Your task to perform on an android device: View the shopping cart on newegg. Add usb-b to the cart on newegg Image 0: 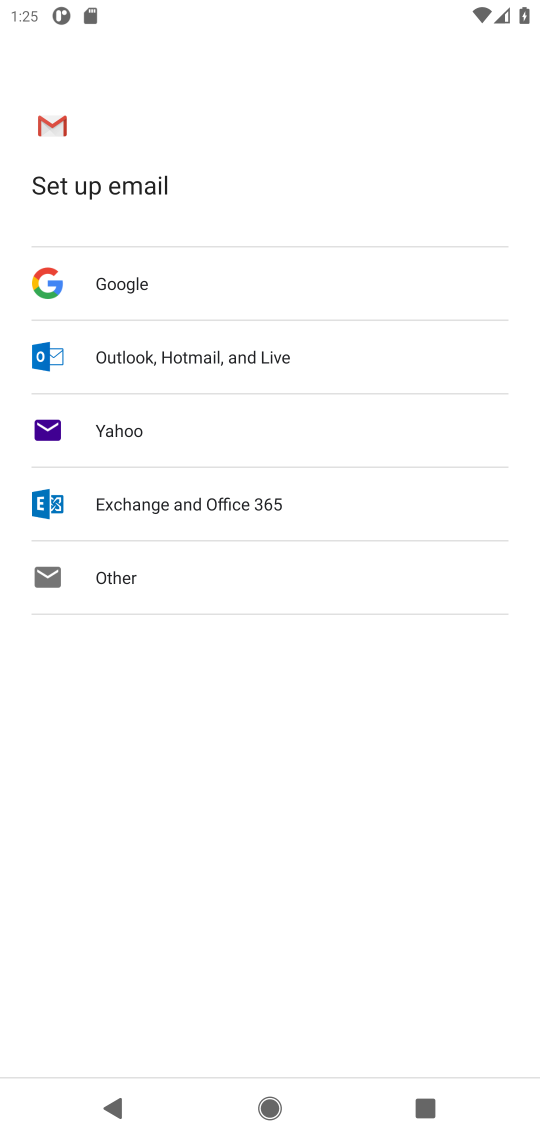
Step 0: press home button
Your task to perform on an android device: View the shopping cart on newegg. Add usb-b to the cart on newegg Image 1: 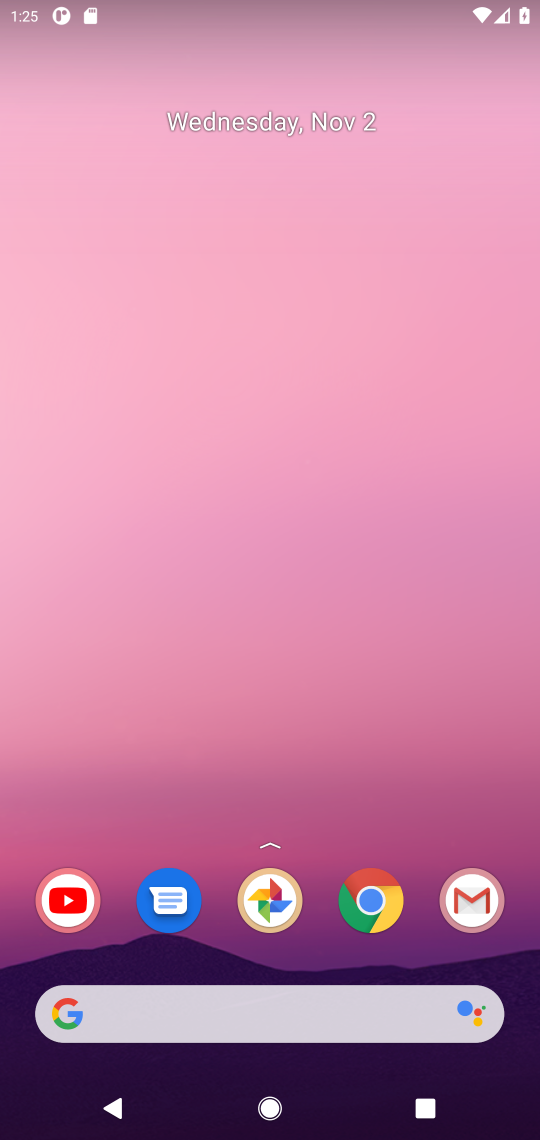
Step 1: click (359, 899)
Your task to perform on an android device: View the shopping cart on newegg. Add usb-b to the cart on newegg Image 2: 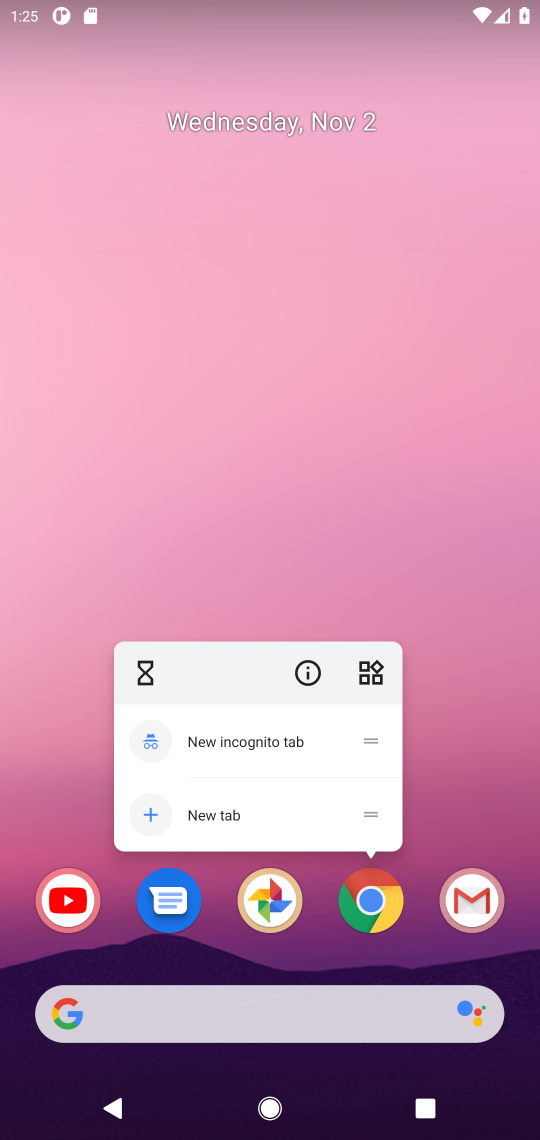
Step 2: click (367, 898)
Your task to perform on an android device: View the shopping cart on newegg. Add usb-b to the cart on newegg Image 3: 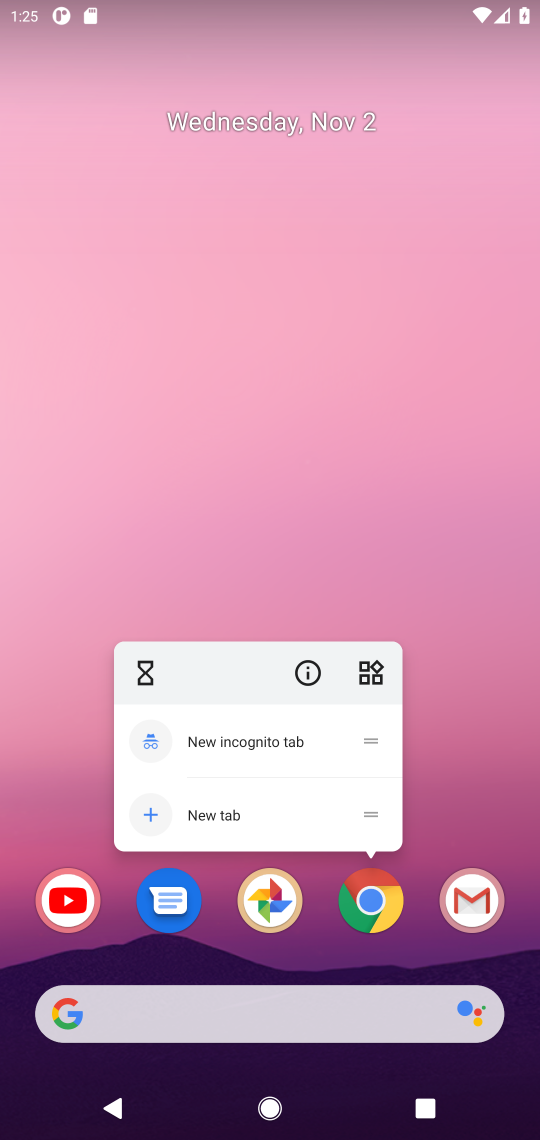
Step 3: click (370, 889)
Your task to perform on an android device: View the shopping cart on newegg. Add usb-b to the cart on newegg Image 4: 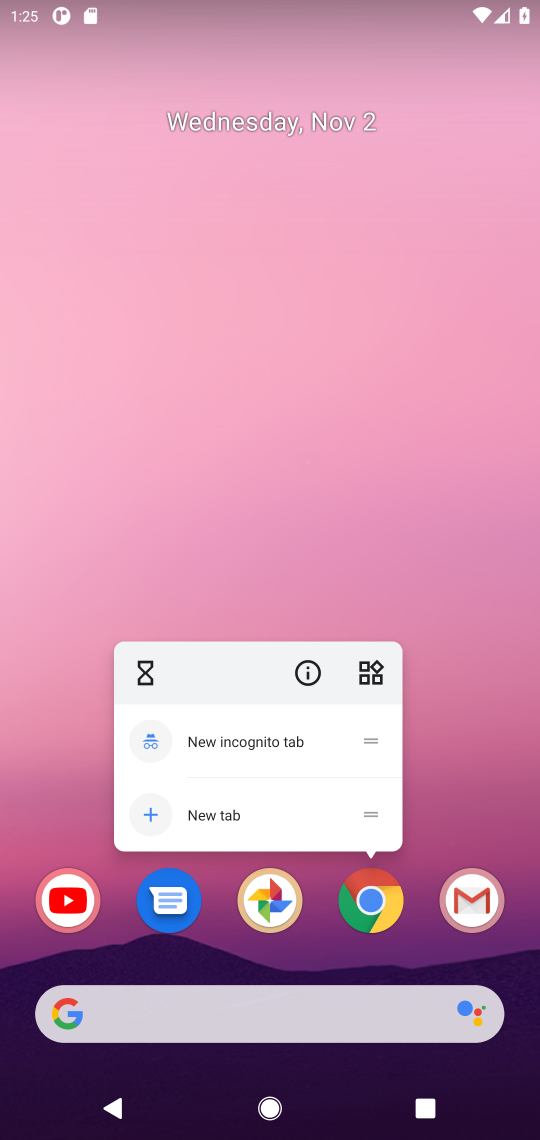
Step 4: click (374, 905)
Your task to perform on an android device: View the shopping cart on newegg. Add usb-b to the cart on newegg Image 5: 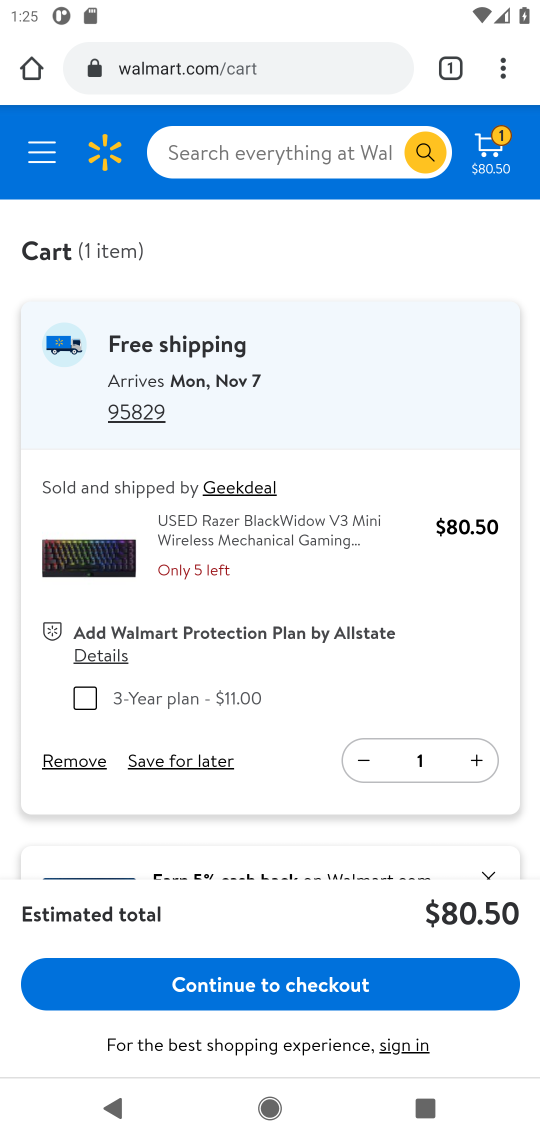
Step 5: click (139, 67)
Your task to perform on an android device: View the shopping cart on newegg. Add usb-b to the cart on newegg Image 6: 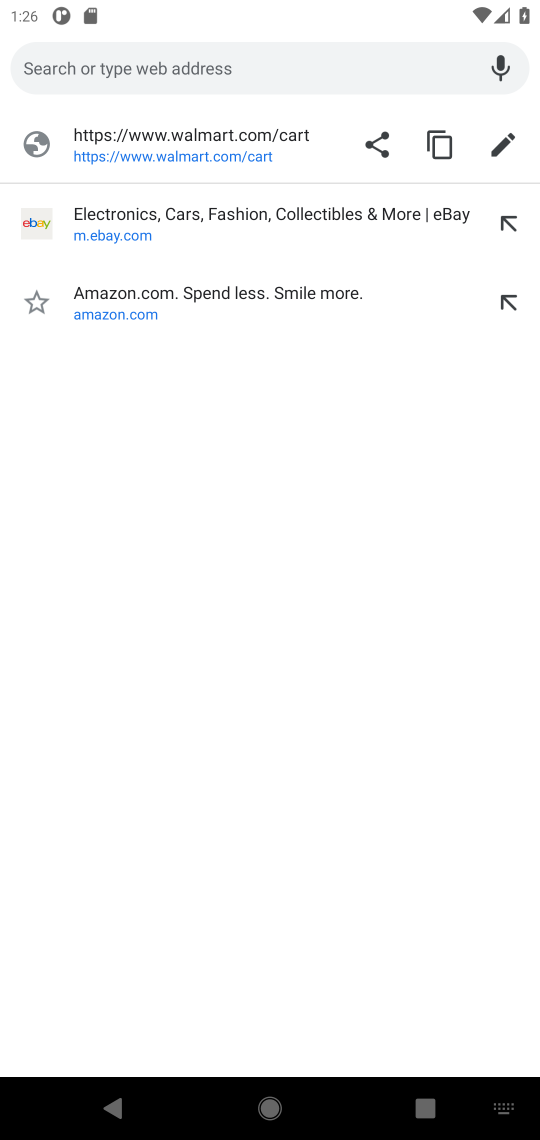
Step 6: type "newegg"
Your task to perform on an android device: View the shopping cart on newegg. Add usb-b to the cart on newegg Image 7: 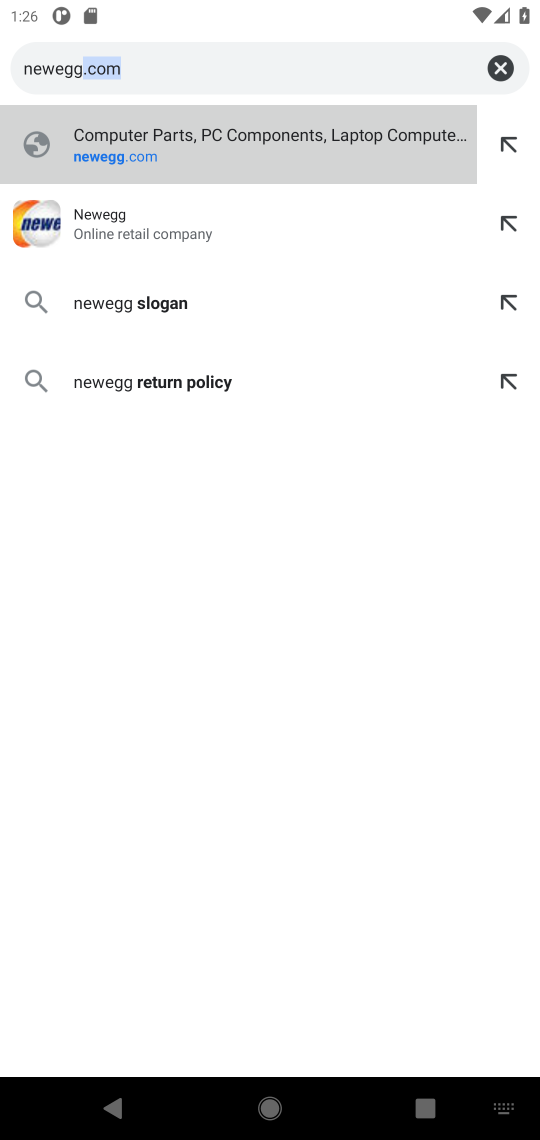
Step 7: click (90, 223)
Your task to perform on an android device: View the shopping cart on newegg. Add usb-b to the cart on newegg Image 8: 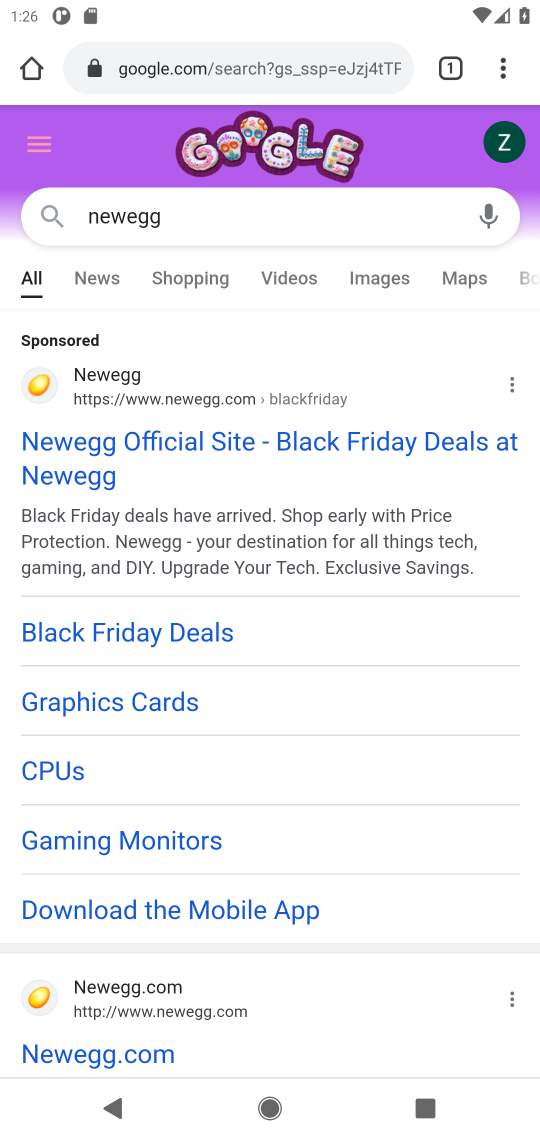
Step 8: drag from (314, 1025) to (325, 336)
Your task to perform on an android device: View the shopping cart on newegg. Add usb-b to the cart on newegg Image 9: 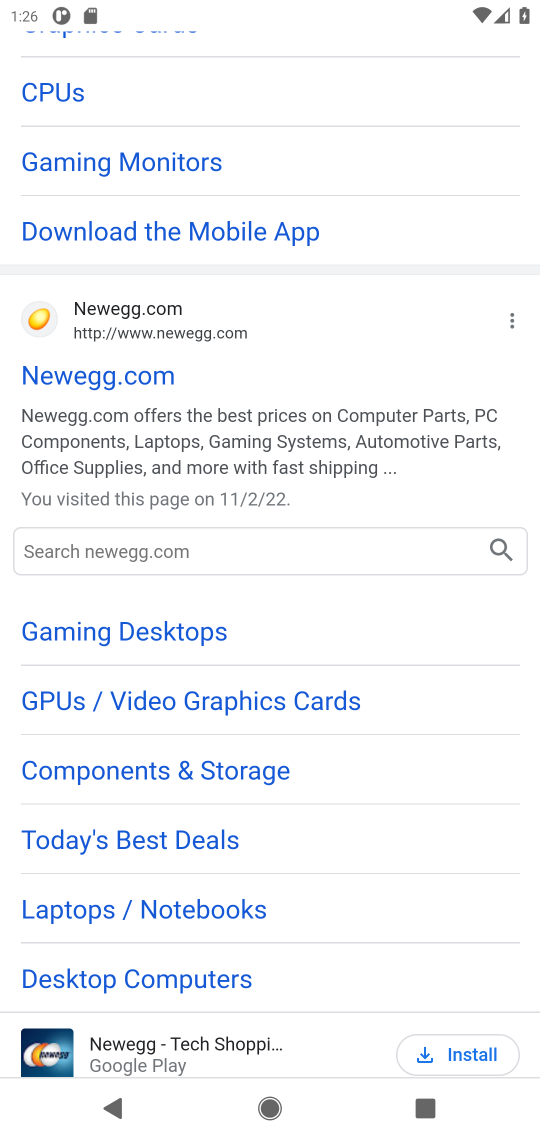
Step 9: drag from (363, 234) to (359, 1010)
Your task to perform on an android device: View the shopping cart on newegg. Add usb-b to the cart on newegg Image 10: 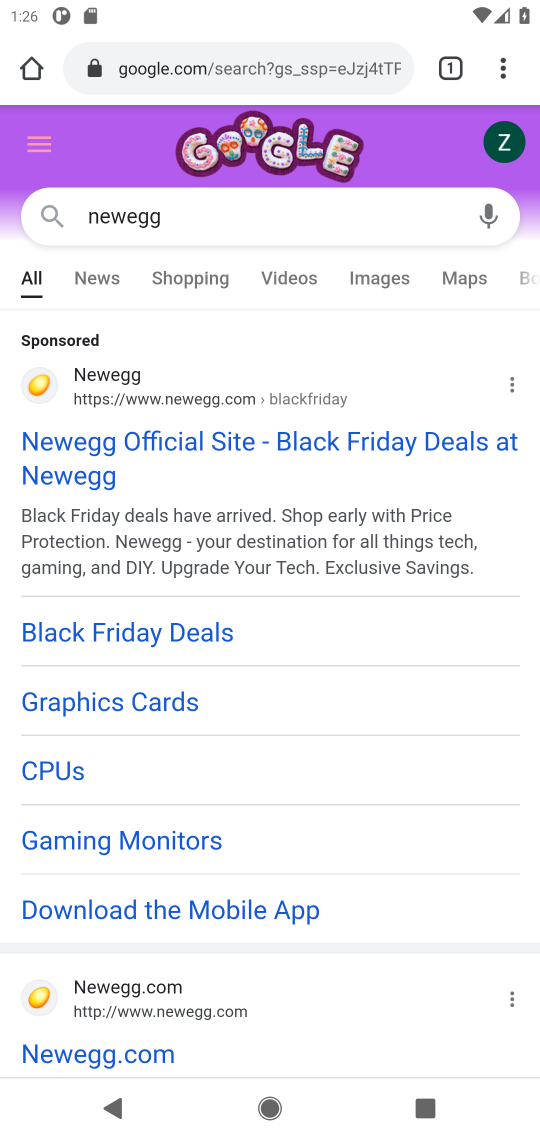
Step 10: click (98, 443)
Your task to perform on an android device: View the shopping cart on newegg. Add usb-b to the cart on newegg Image 11: 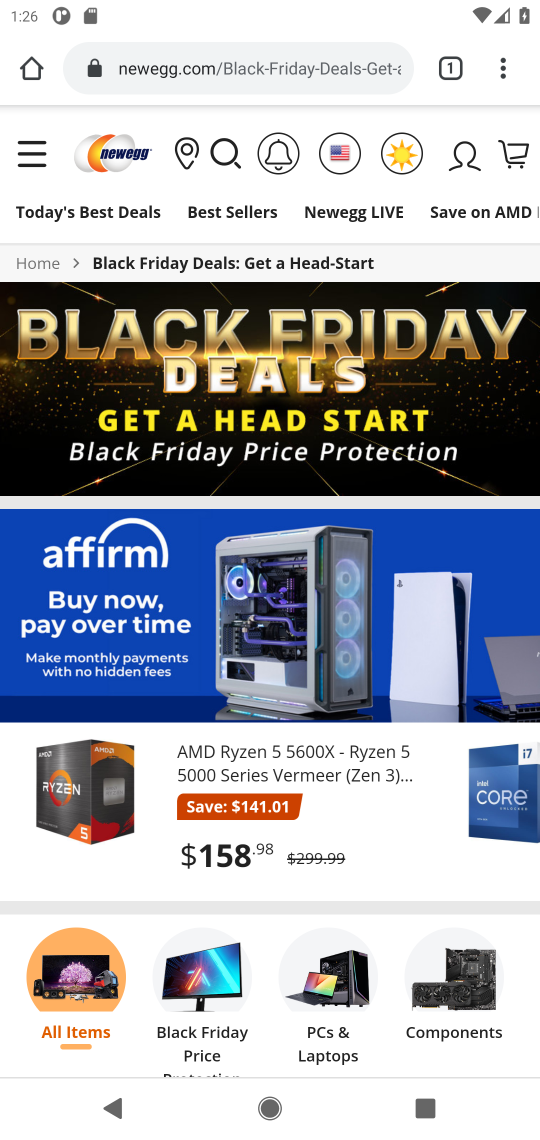
Step 11: click (220, 151)
Your task to perform on an android device: View the shopping cart on newegg. Add usb-b to the cart on newegg Image 12: 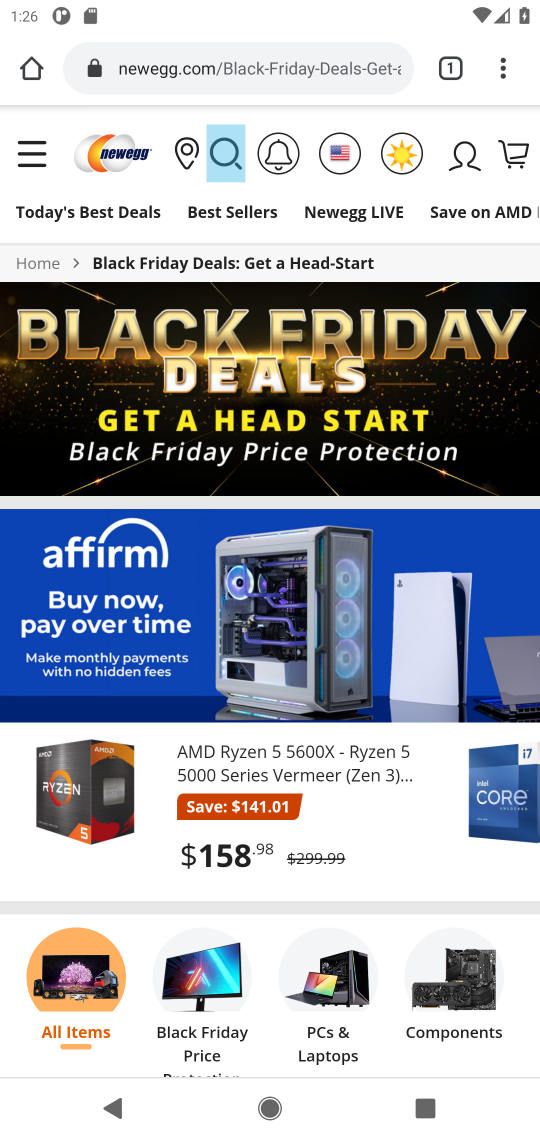
Step 12: click (223, 151)
Your task to perform on an android device: View the shopping cart on newegg. Add usb-b to the cart on newegg Image 13: 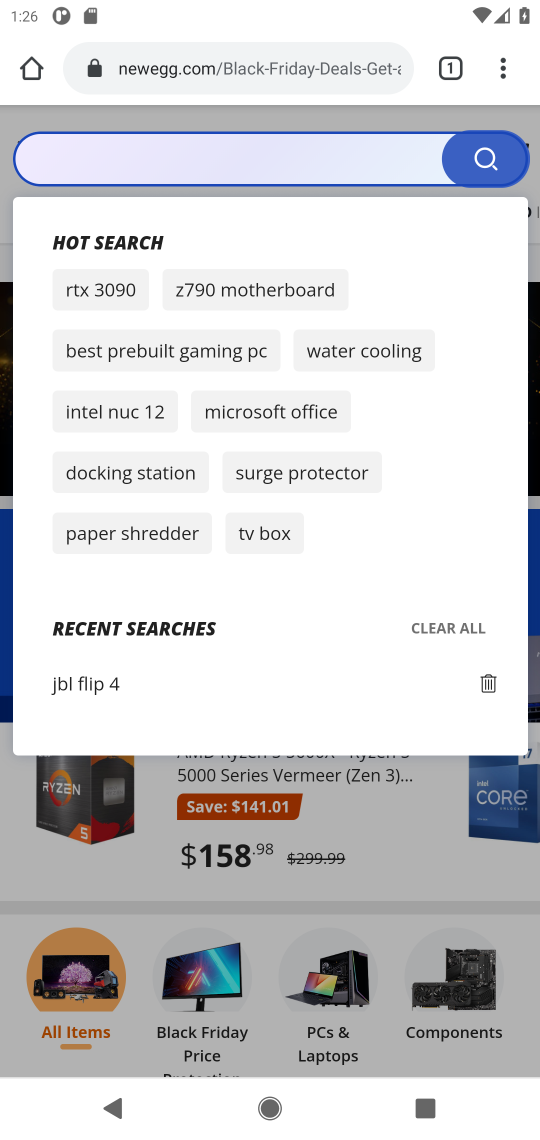
Step 13: click (223, 151)
Your task to perform on an android device: View the shopping cart on newegg. Add usb-b to the cart on newegg Image 14: 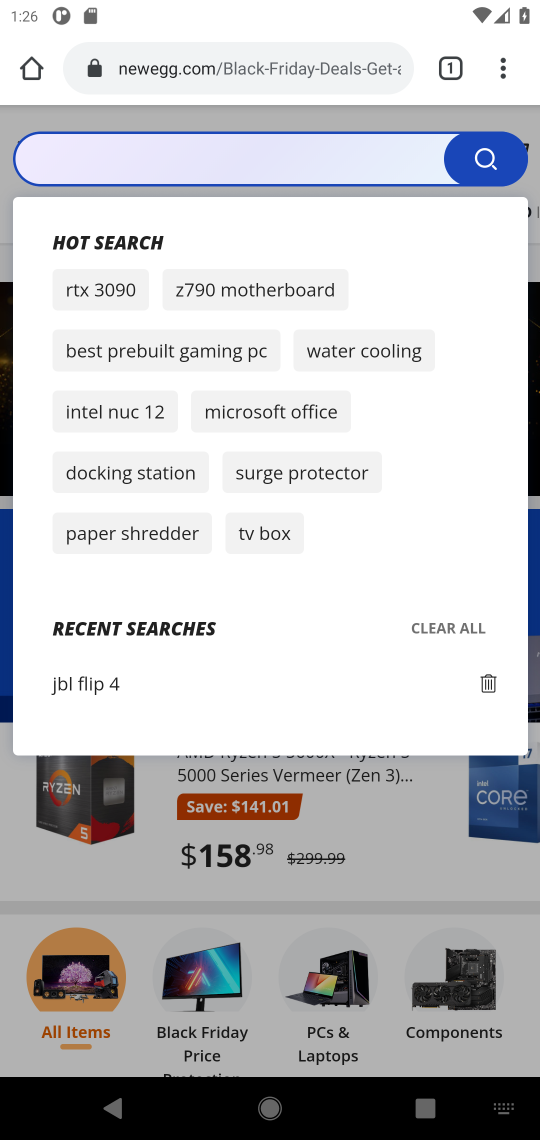
Step 14: type "usb - b"
Your task to perform on an android device: View the shopping cart on newegg. Add usb-b to the cart on newegg Image 15: 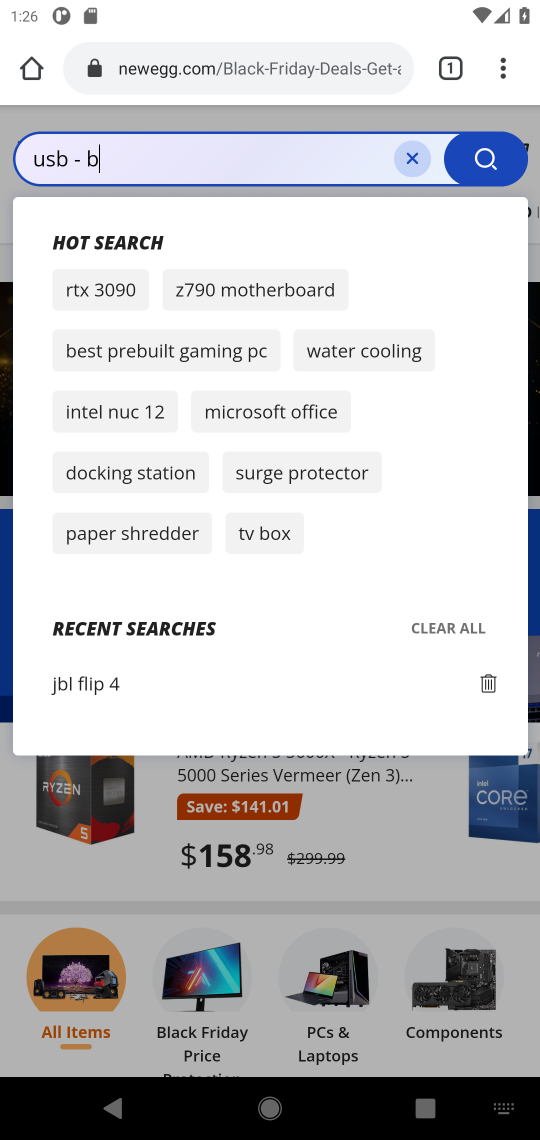
Step 15: type ""
Your task to perform on an android device: View the shopping cart on newegg. Add usb-b to the cart on newegg Image 16: 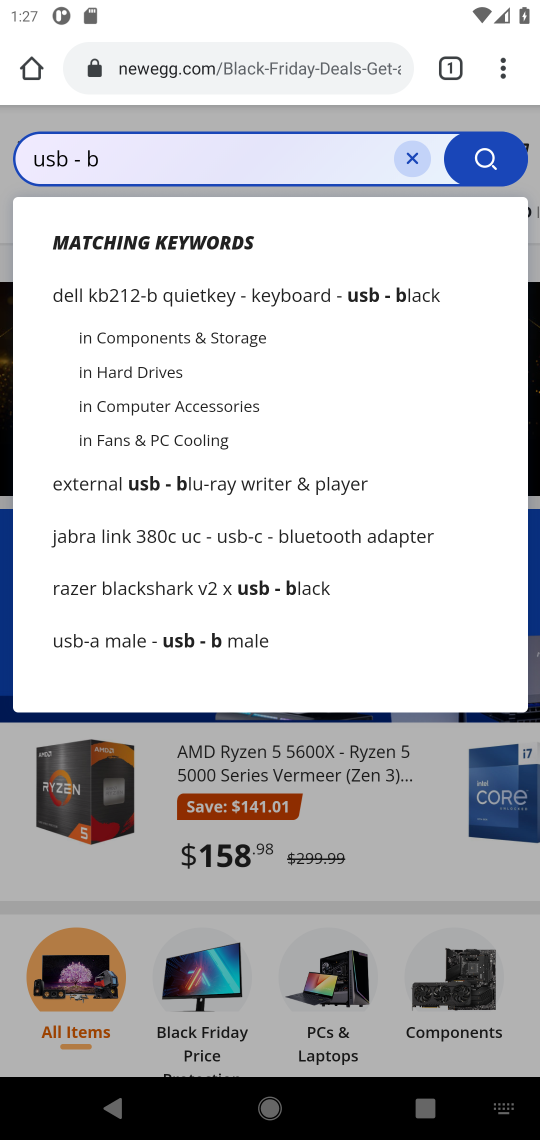
Step 16: click (249, 643)
Your task to perform on an android device: View the shopping cart on newegg. Add usb-b to the cart on newegg Image 17: 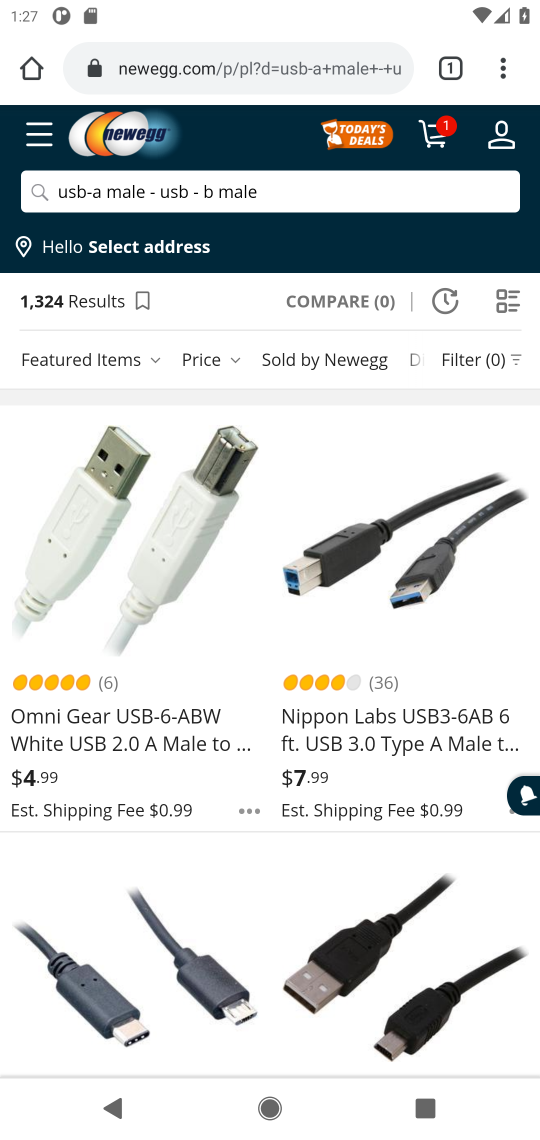
Step 17: drag from (217, 857) to (263, 440)
Your task to perform on an android device: View the shopping cart on newegg. Add usb-b to the cart on newegg Image 18: 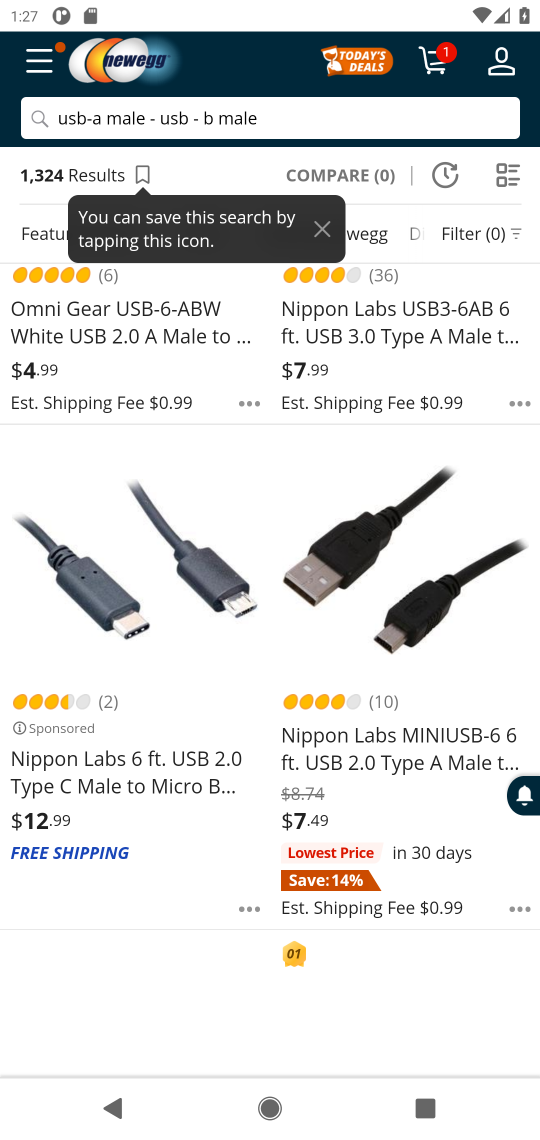
Step 18: drag from (229, 591) to (215, 1059)
Your task to perform on an android device: View the shopping cart on newegg. Add usb-b to the cart on newegg Image 19: 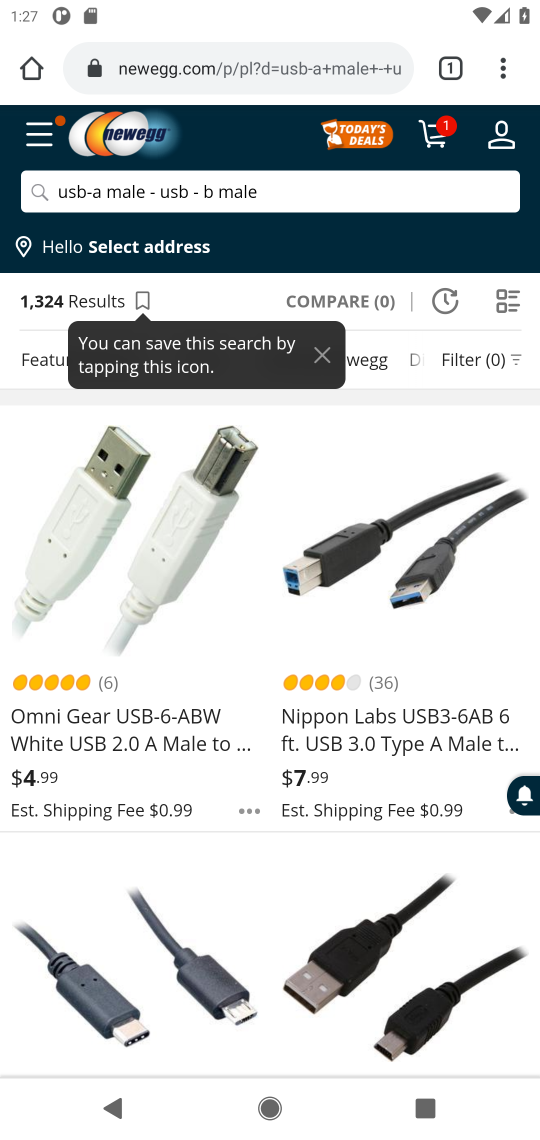
Step 19: click (82, 525)
Your task to perform on an android device: View the shopping cart on newegg. Add usb-b to the cart on newegg Image 20: 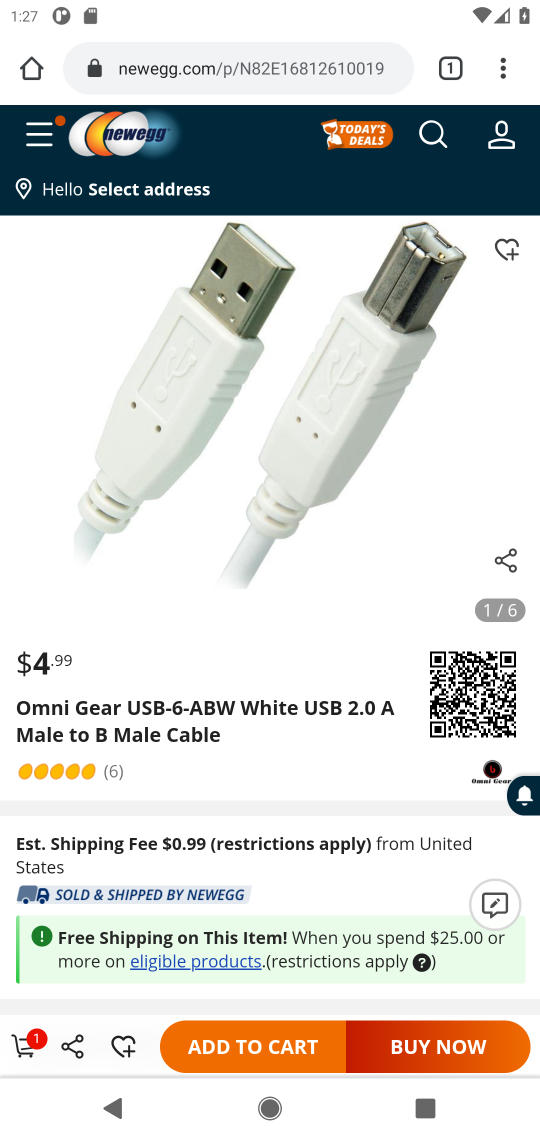
Step 20: click (258, 1052)
Your task to perform on an android device: View the shopping cart on newegg. Add usb-b to the cart on newegg Image 21: 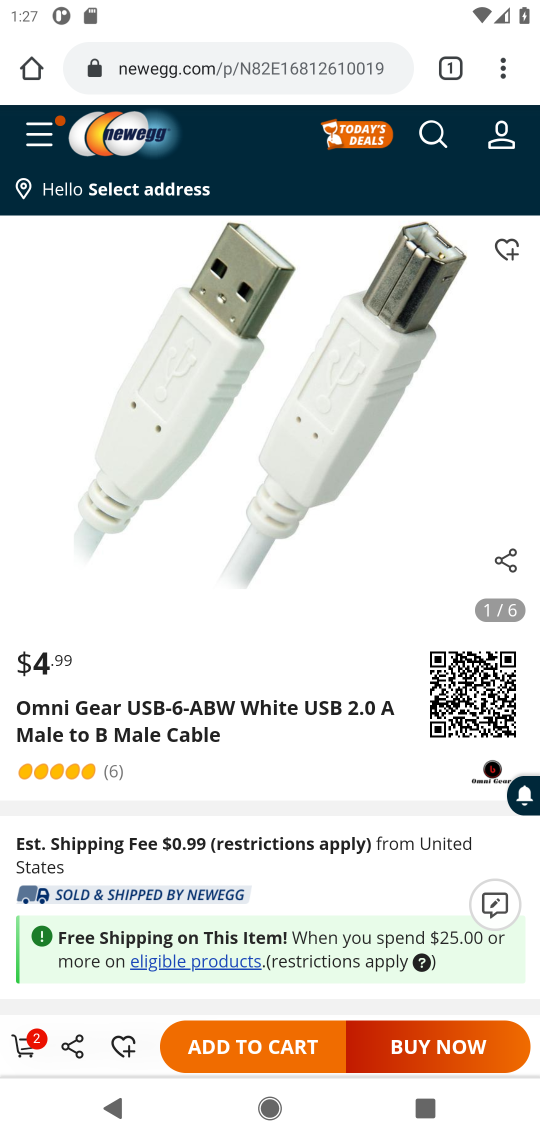
Step 21: task complete